Your task to perform on an android device: Go to Yahoo.com Image 0: 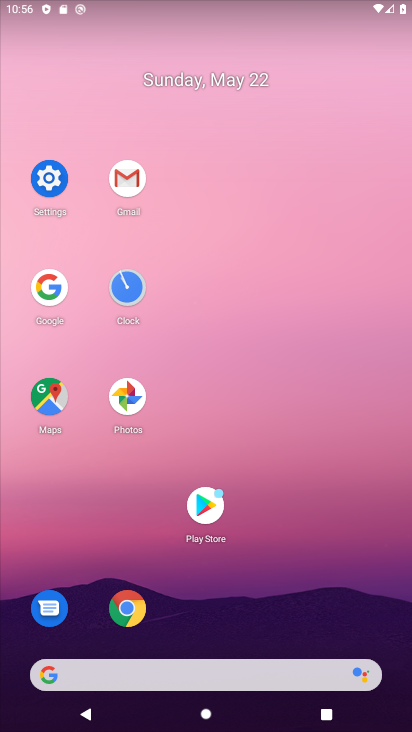
Step 0: click (134, 593)
Your task to perform on an android device: Go to Yahoo.com Image 1: 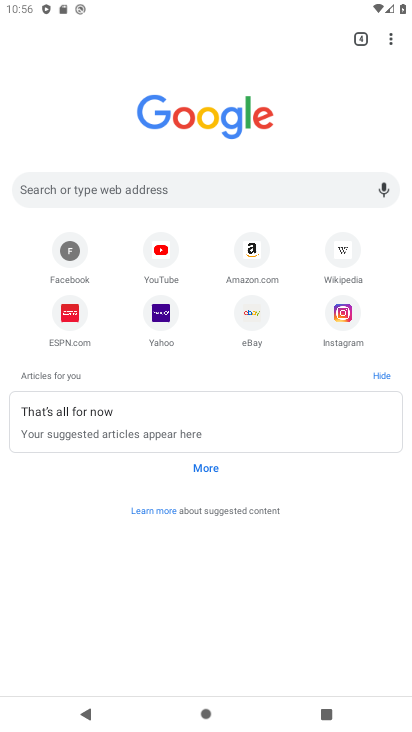
Step 1: click (167, 315)
Your task to perform on an android device: Go to Yahoo.com Image 2: 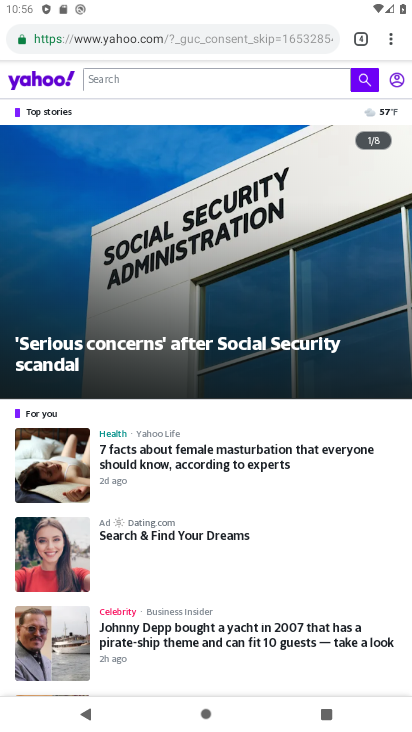
Step 2: task complete